Your task to perform on an android device: Set the phone to "Do not disturb". Image 0: 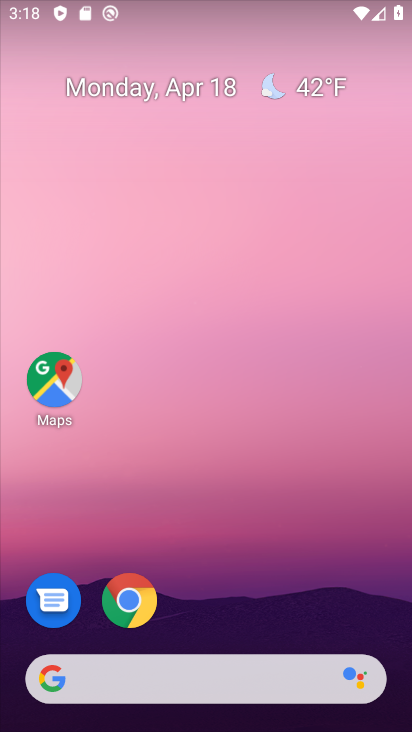
Step 0: drag from (267, 649) to (380, 38)
Your task to perform on an android device: Set the phone to "Do not disturb". Image 1: 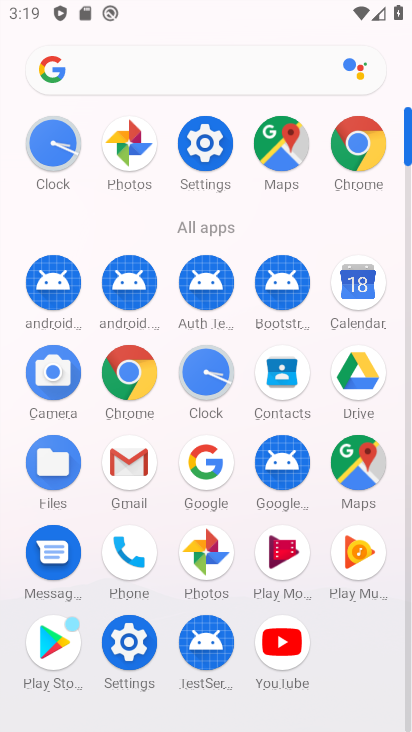
Step 1: click (207, 141)
Your task to perform on an android device: Set the phone to "Do not disturb". Image 2: 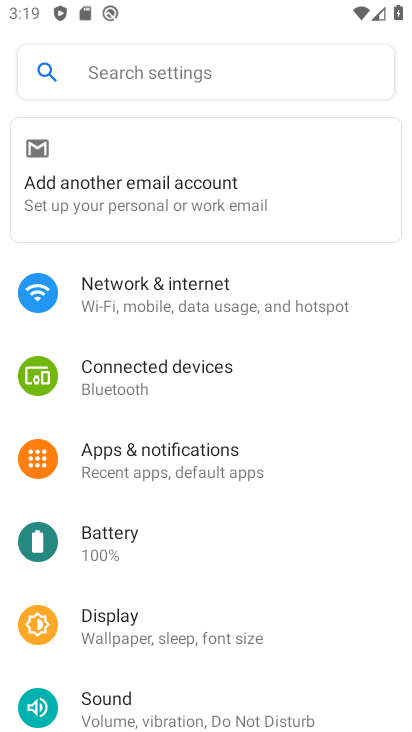
Step 2: drag from (211, 549) to (347, 265)
Your task to perform on an android device: Set the phone to "Do not disturb". Image 3: 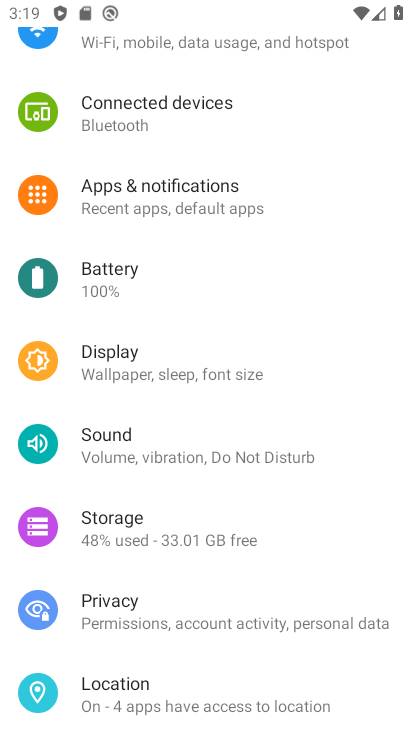
Step 3: click (194, 460)
Your task to perform on an android device: Set the phone to "Do not disturb". Image 4: 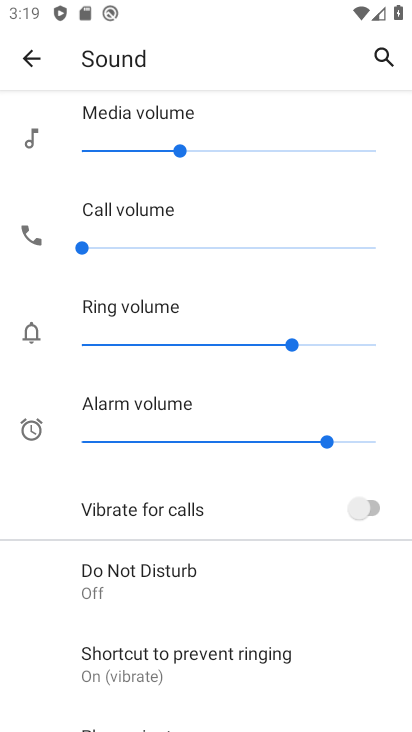
Step 4: click (139, 576)
Your task to perform on an android device: Set the phone to "Do not disturb". Image 5: 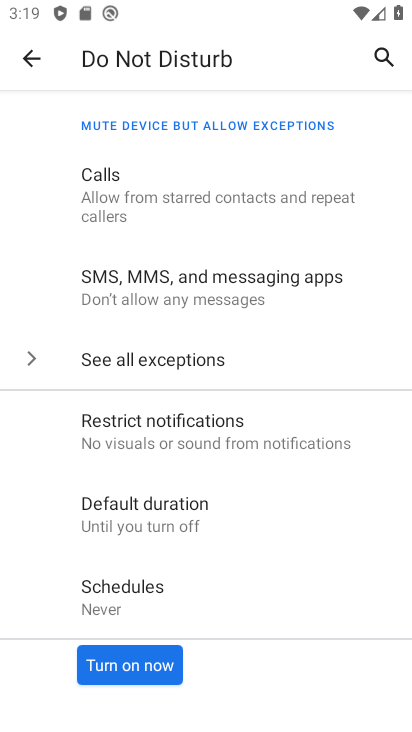
Step 5: click (144, 669)
Your task to perform on an android device: Set the phone to "Do not disturb". Image 6: 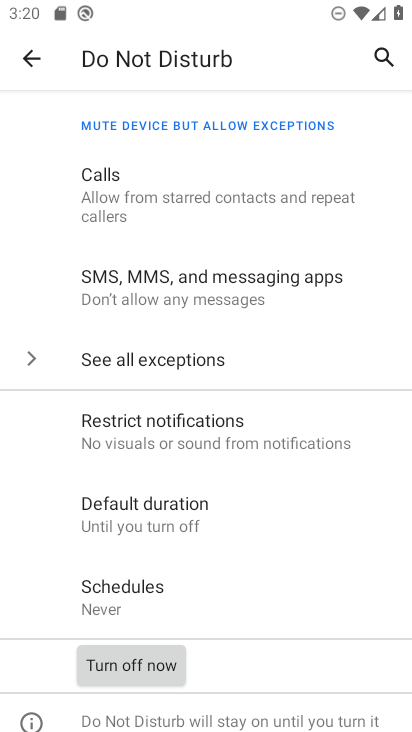
Step 6: task complete